Your task to perform on an android device: turn notification dots on Image 0: 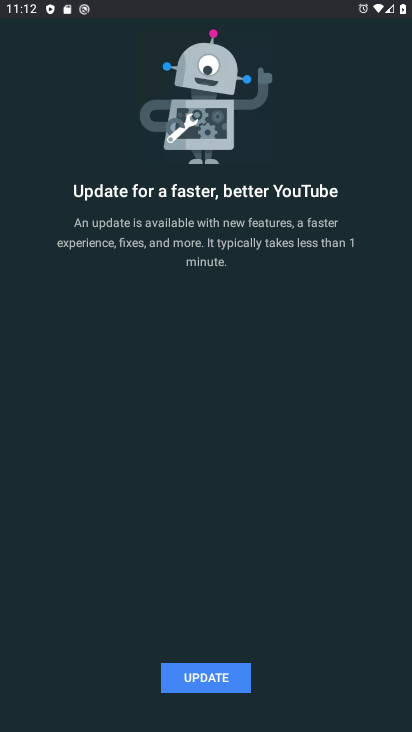
Step 0: press back button
Your task to perform on an android device: turn notification dots on Image 1: 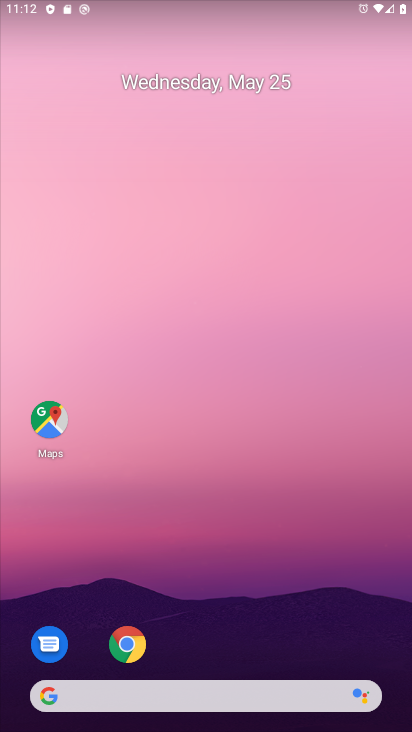
Step 1: drag from (247, 464) to (238, 54)
Your task to perform on an android device: turn notification dots on Image 2: 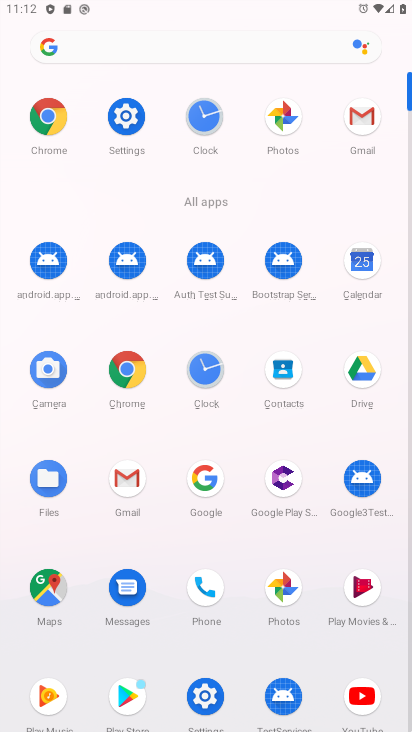
Step 2: click (127, 117)
Your task to perform on an android device: turn notification dots on Image 3: 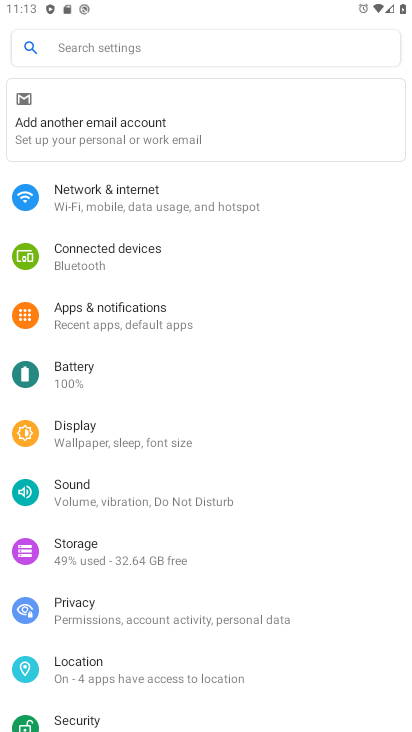
Step 3: click (103, 312)
Your task to perform on an android device: turn notification dots on Image 4: 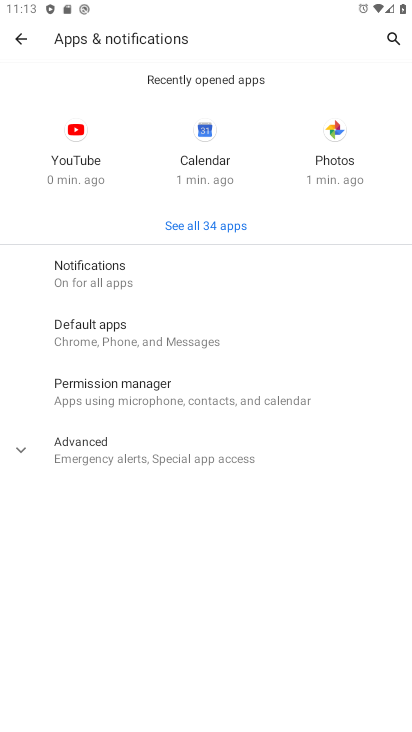
Step 4: click (97, 267)
Your task to perform on an android device: turn notification dots on Image 5: 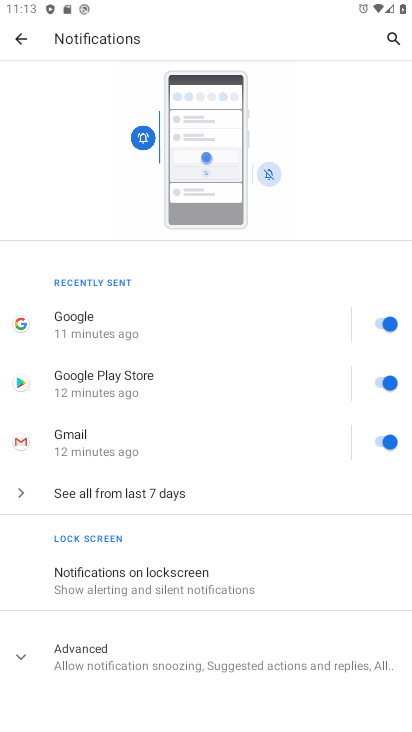
Step 5: click (73, 666)
Your task to perform on an android device: turn notification dots on Image 6: 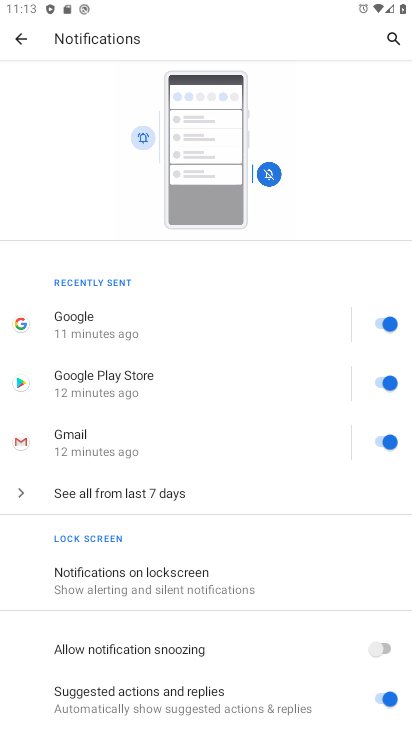
Step 6: task complete